Your task to perform on an android device: change the clock display to digital Image 0: 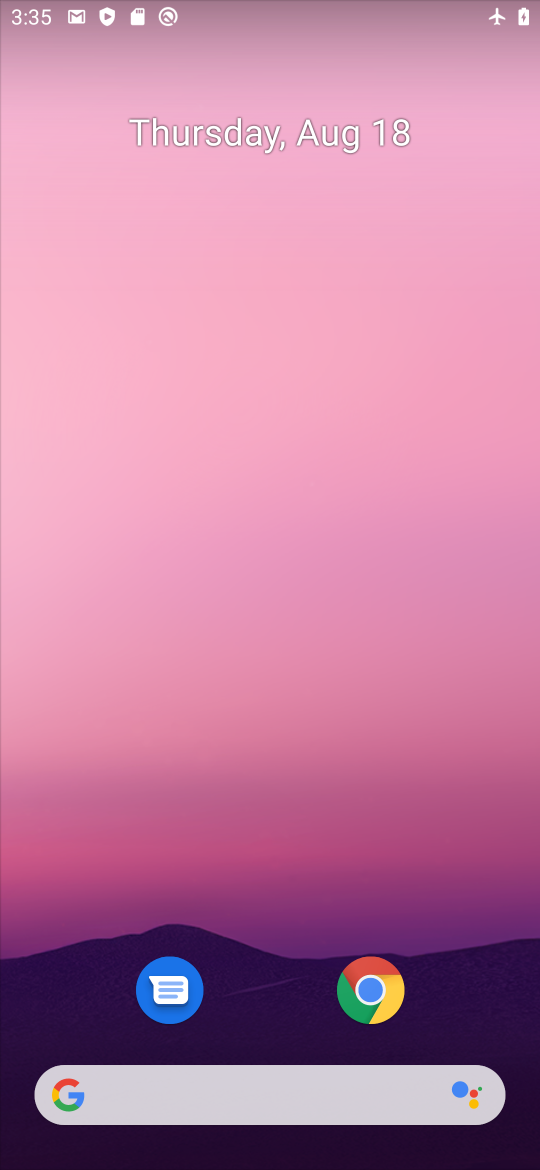
Step 0: drag from (247, 929) to (361, 116)
Your task to perform on an android device: change the clock display to digital Image 1: 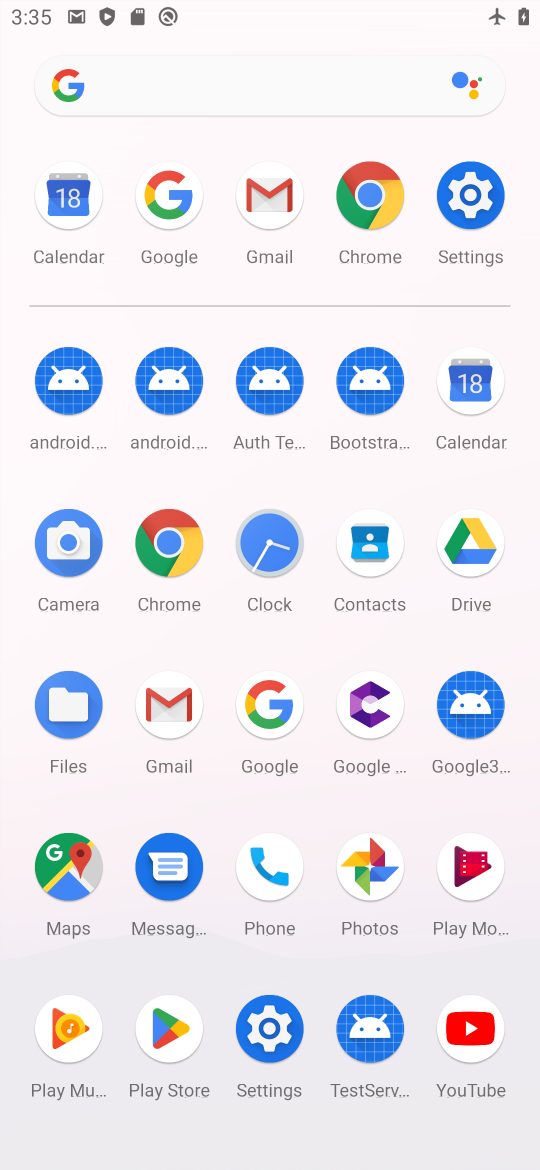
Step 1: click (274, 1036)
Your task to perform on an android device: change the clock display to digital Image 2: 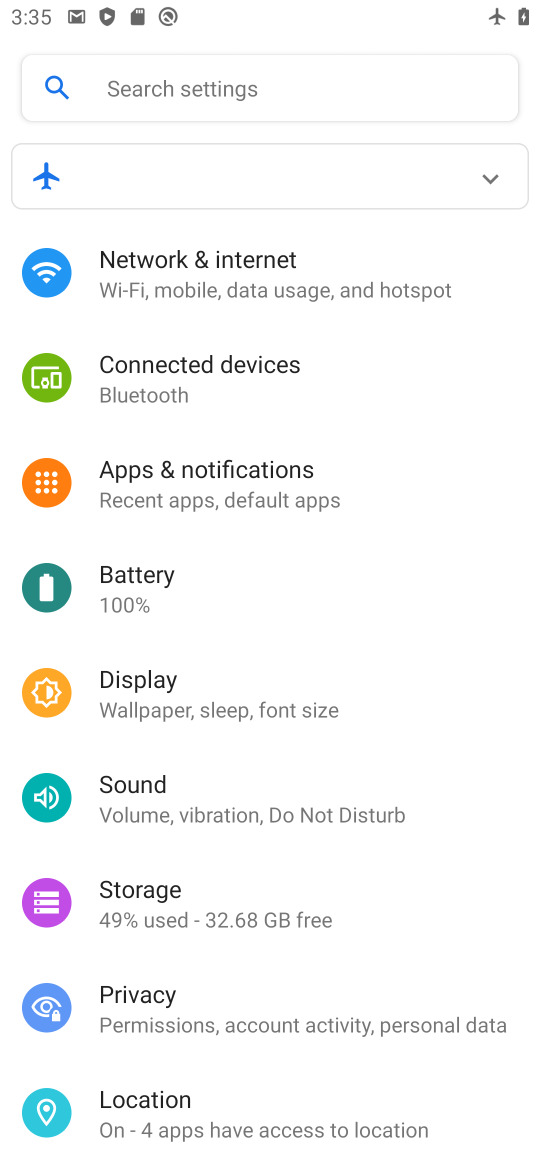
Step 2: press home button
Your task to perform on an android device: change the clock display to digital Image 3: 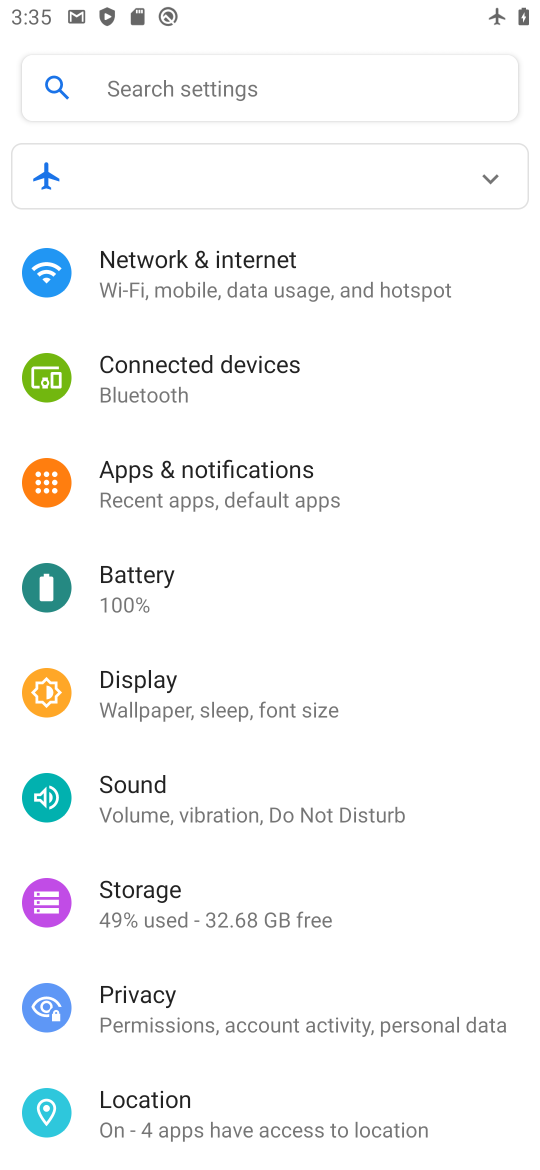
Step 3: press home button
Your task to perform on an android device: change the clock display to digital Image 4: 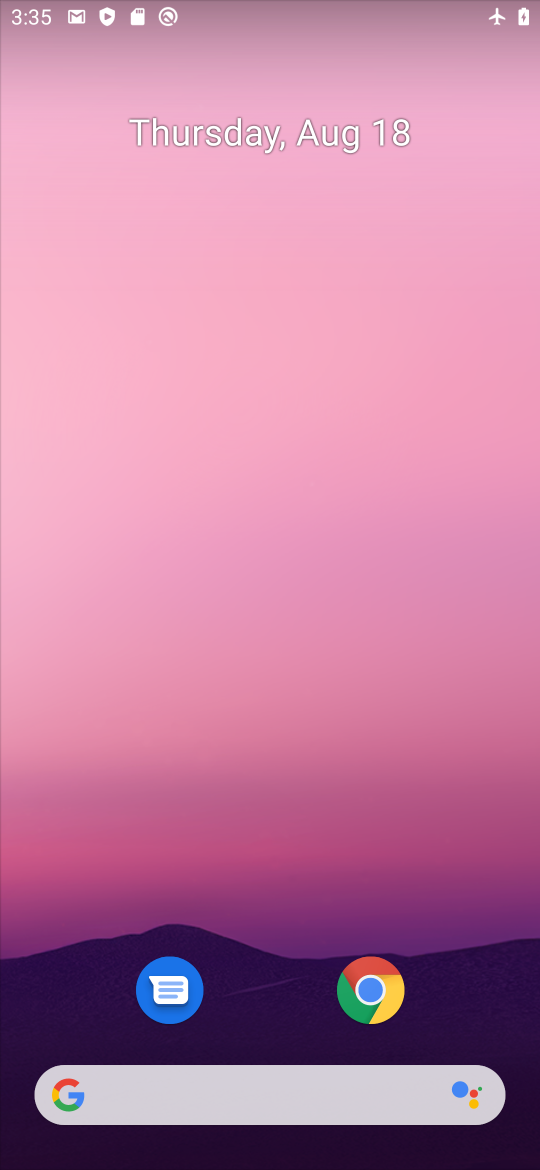
Step 4: press home button
Your task to perform on an android device: change the clock display to digital Image 5: 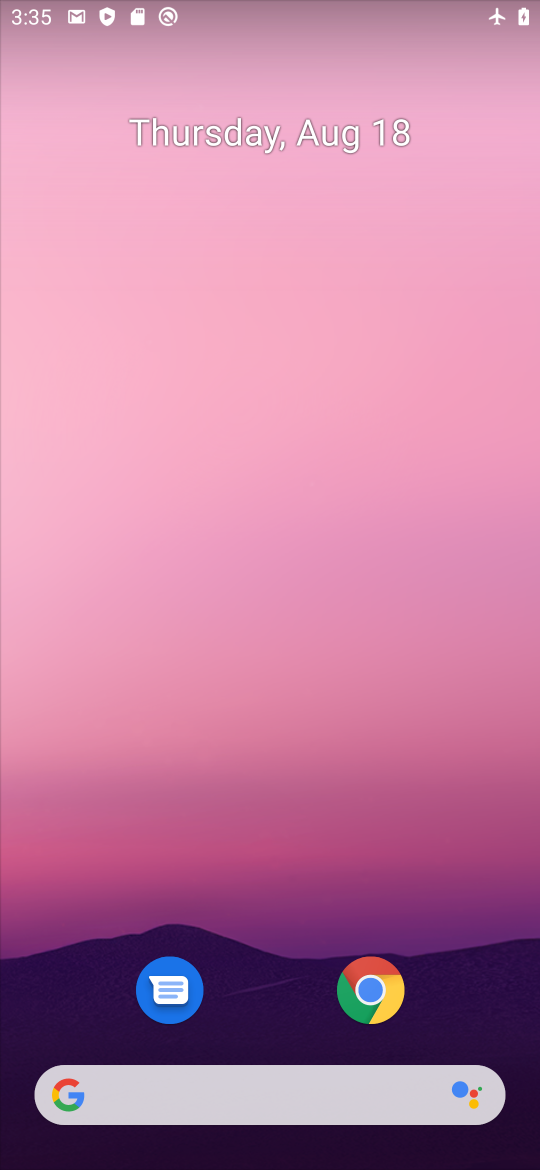
Step 5: drag from (290, 956) to (332, 62)
Your task to perform on an android device: change the clock display to digital Image 6: 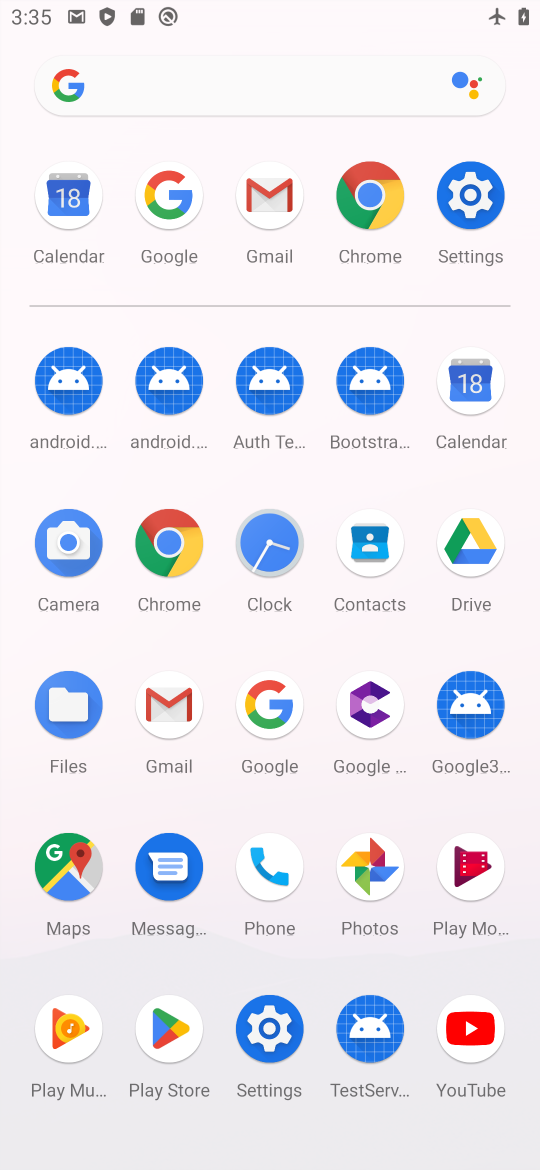
Step 6: click (272, 553)
Your task to perform on an android device: change the clock display to digital Image 7: 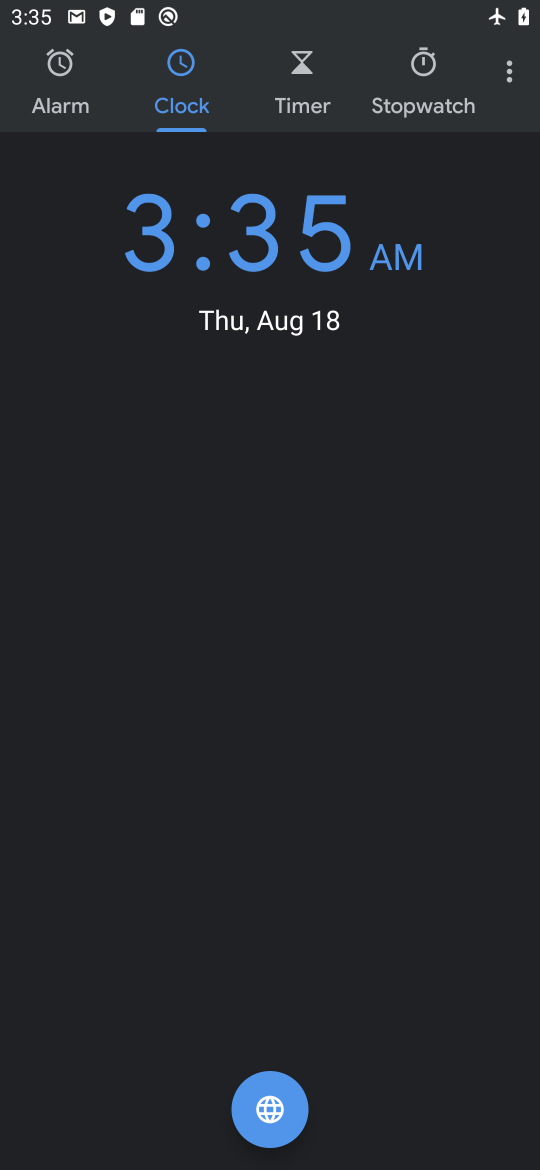
Step 7: click (507, 70)
Your task to perform on an android device: change the clock display to digital Image 8: 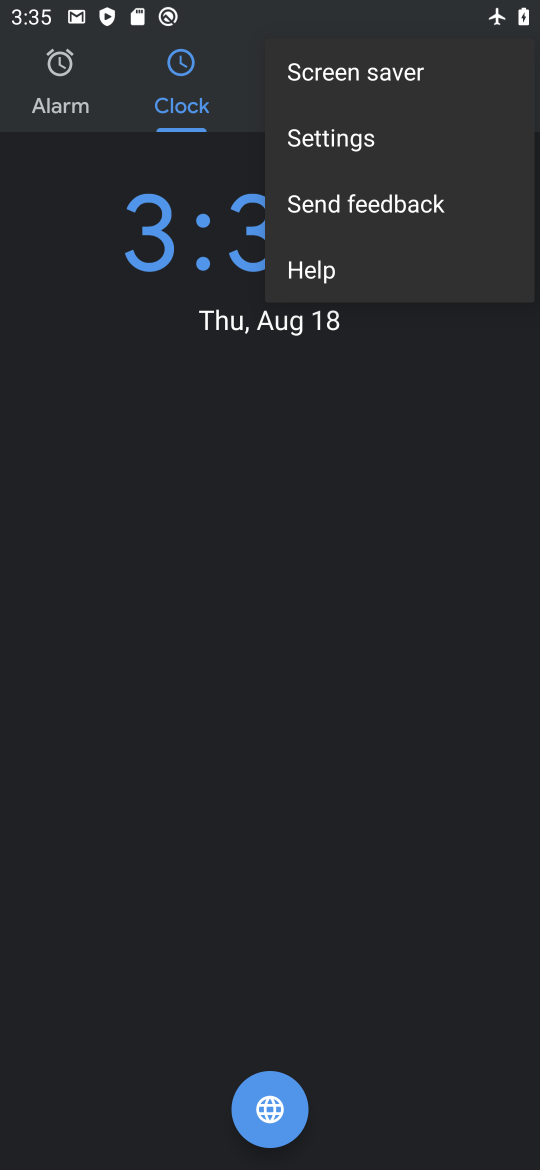
Step 8: click (357, 161)
Your task to perform on an android device: change the clock display to digital Image 9: 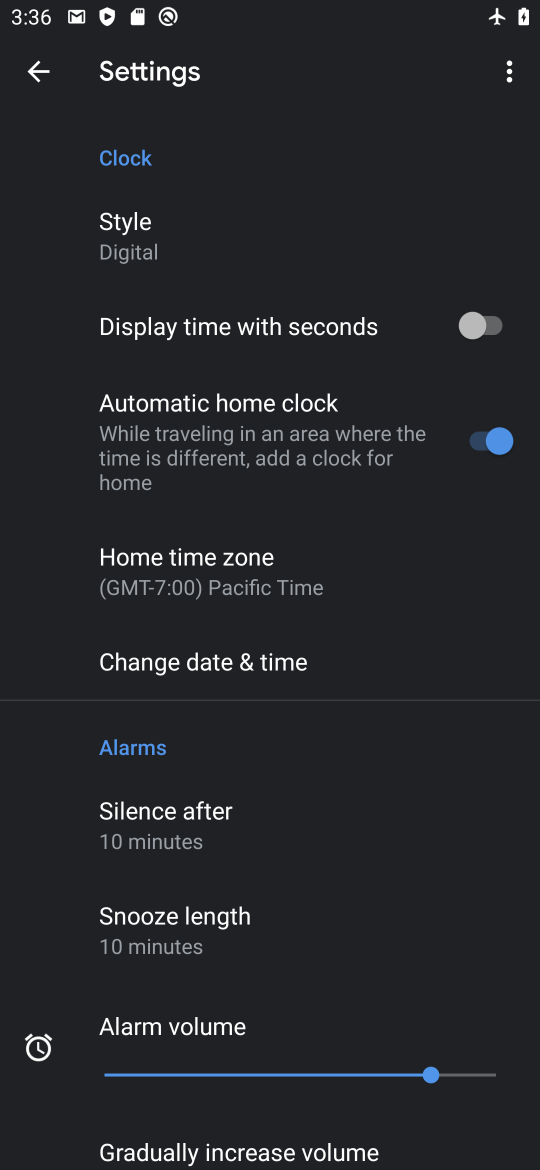
Step 9: click (172, 217)
Your task to perform on an android device: change the clock display to digital Image 10: 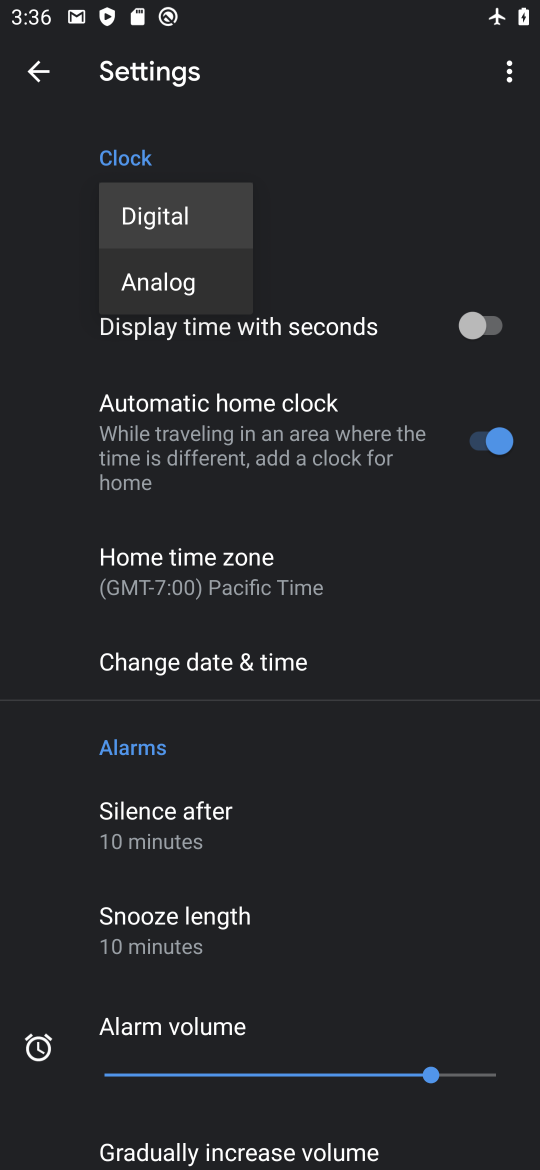
Step 10: task complete